Your task to perform on an android device: Open settings on Google Maps Image 0: 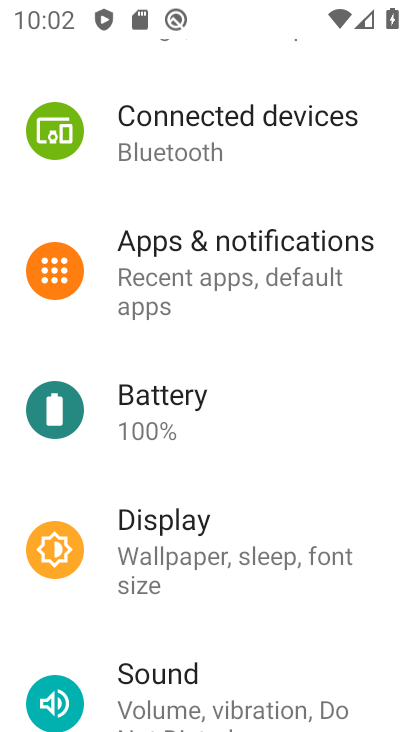
Step 0: press home button
Your task to perform on an android device: Open settings on Google Maps Image 1: 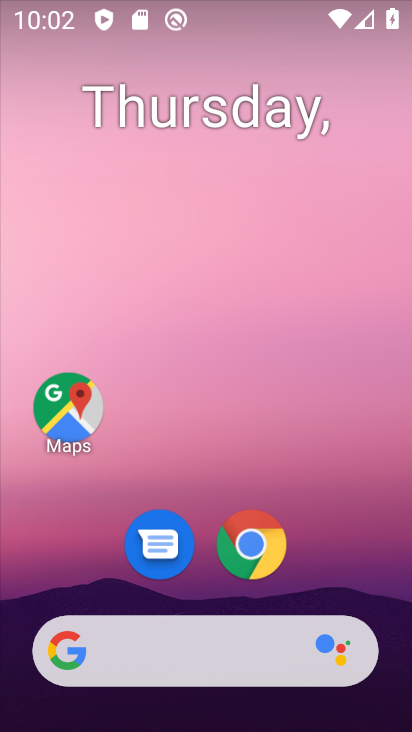
Step 1: click (65, 399)
Your task to perform on an android device: Open settings on Google Maps Image 2: 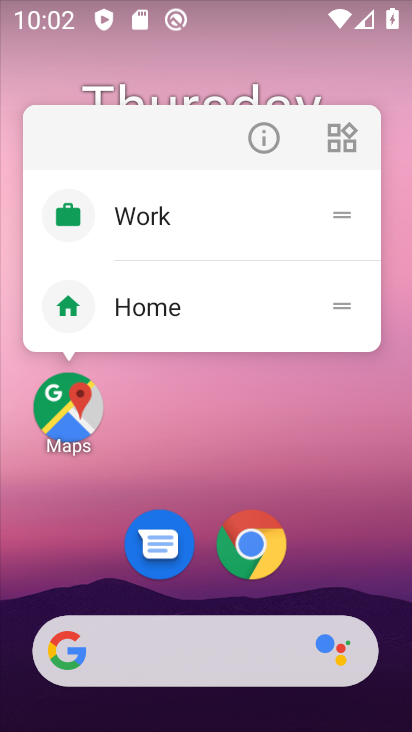
Step 2: click (68, 406)
Your task to perform on an android device: Open settings on Google Maps Image 3: 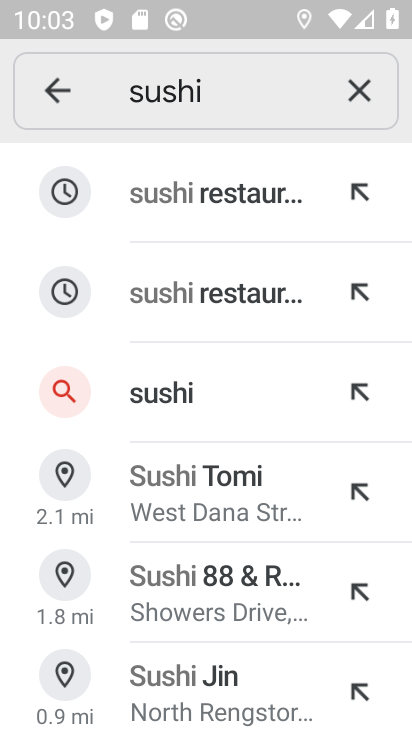
Step 3: click (364, 86)
Your task to perform on an android device: Open settings on Google Maps Image 4: 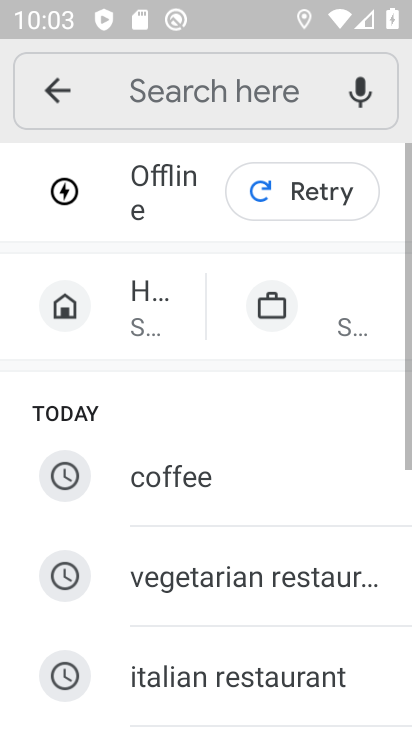
Step 4: click (61, 95)
Your task to perform on an android device: Open settings on Google Maps Image 5: 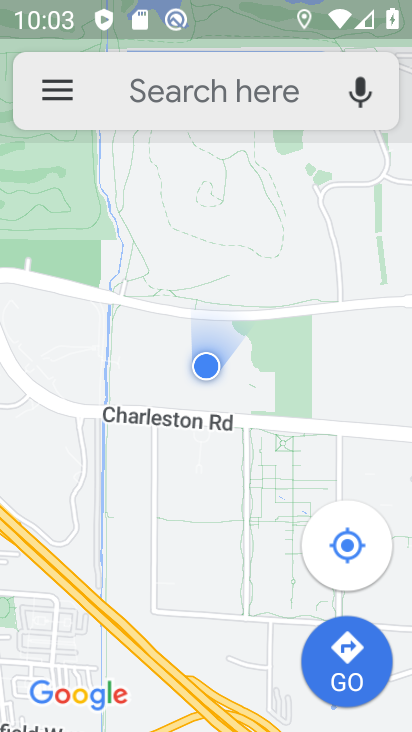
Step 5: click (52, 84)
Your task to perform on an android device: Open settings on Google Maps Image 6: 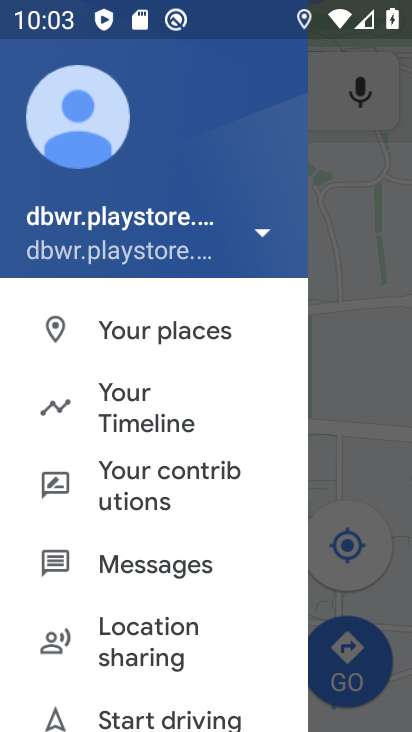
Step 6: drag from (138, 431) to (148, 214)
Your task to perform on an android device: Open settings on Google Maps Image 7: 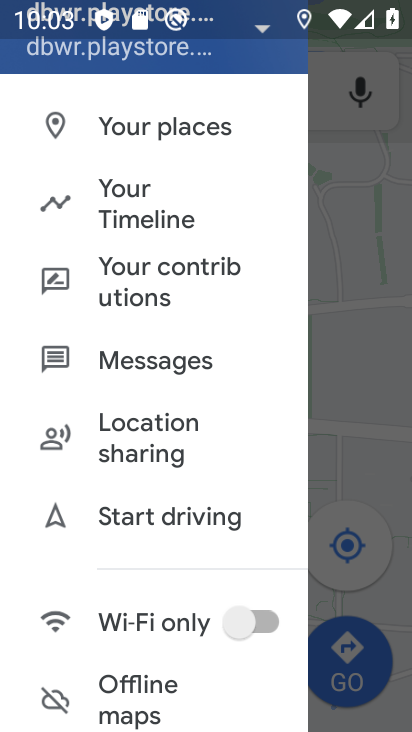
Step 7: drag from (121, 660) to (121, 258)
Your task to perform on an android device: Open settings on Google Maps Image 8: 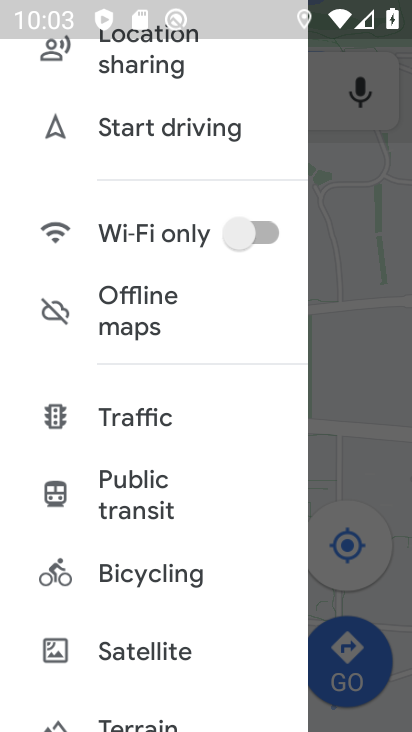
Step 8: drag from (104, 530) to (162, 72)
Your task to perform on an android device: Open settings on Google Maps Image 9: 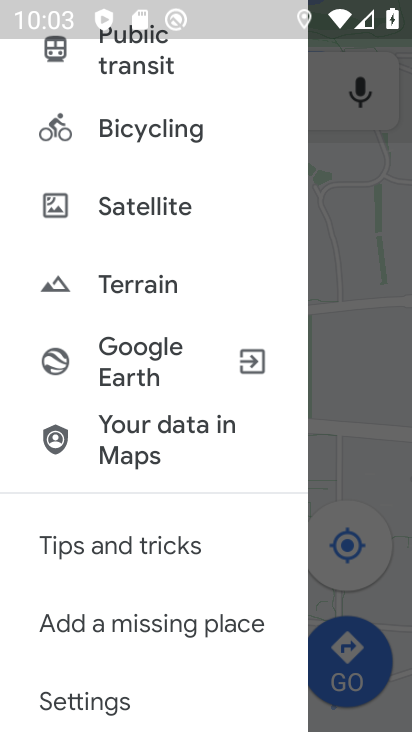
Step 9: click (134, 700)
Your task to perform on an android device: Open settings on Google Maps Image 10: 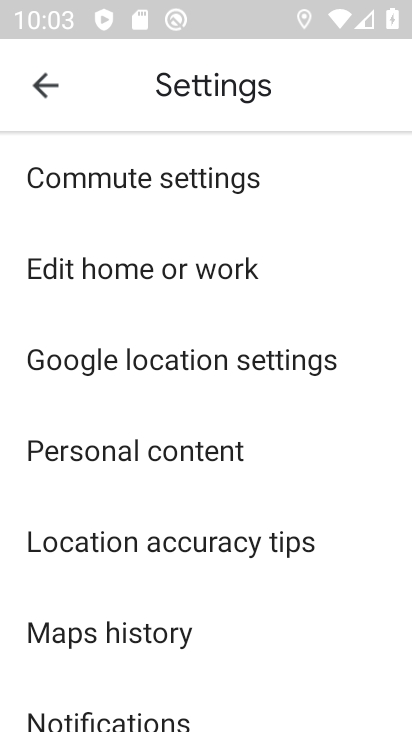
Step 10: task complete